Your task to perform on an android device: toggle improve location accuracy Image 0: 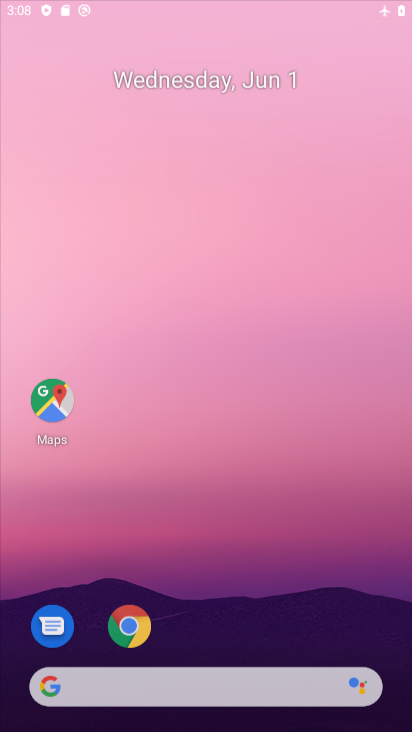
Step 0: press home button
Your task to perform on an android device: toggle improve location accuracy Image 1: 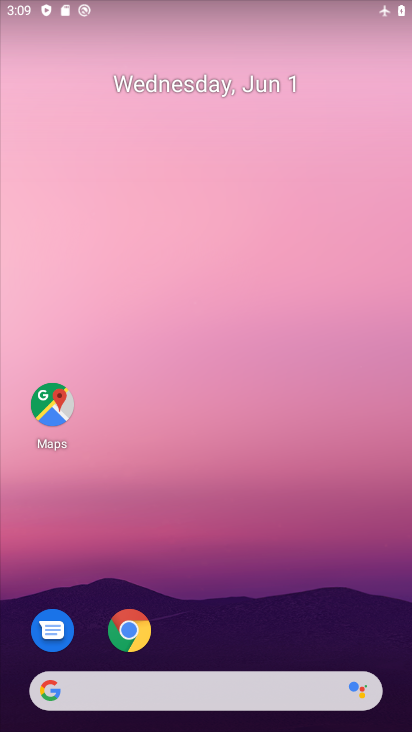
Step 1: drag from (233, 650) to (236, 228)
Your task to perform on an android device: toggle improve location accuracy Image 2: 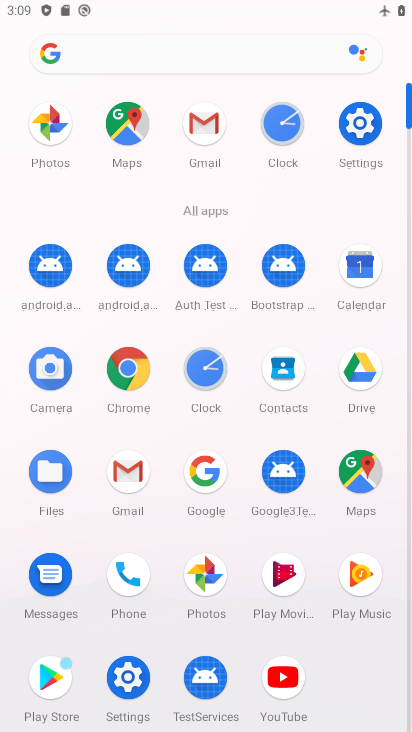
Step 2: click (363, 134)
Your task to perform on an android device: toggle improve location accuracy Image 3: 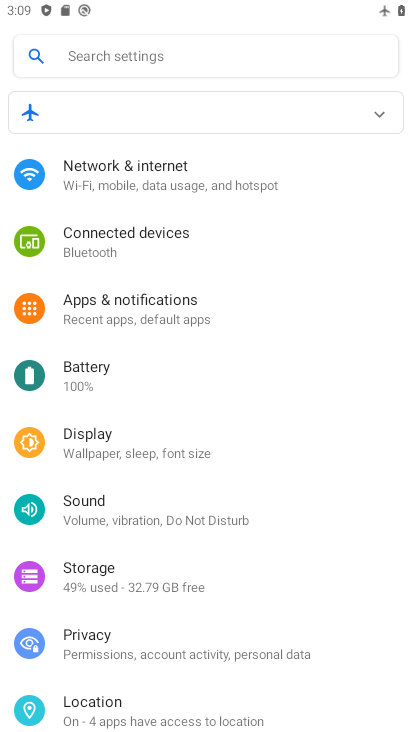
Step 3: click (106, 717)
Your task to perform on an android device: toggle improve location accuracy Image 4: 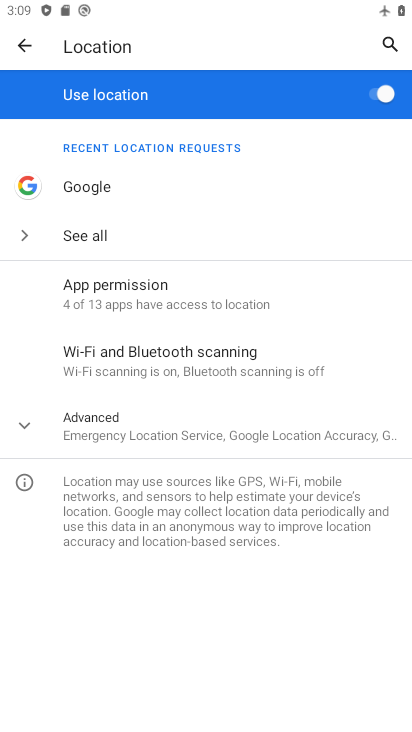
Step 4: click (100, 428)
Your task to perform on an android device: toggle improve location accuracy Image 5: 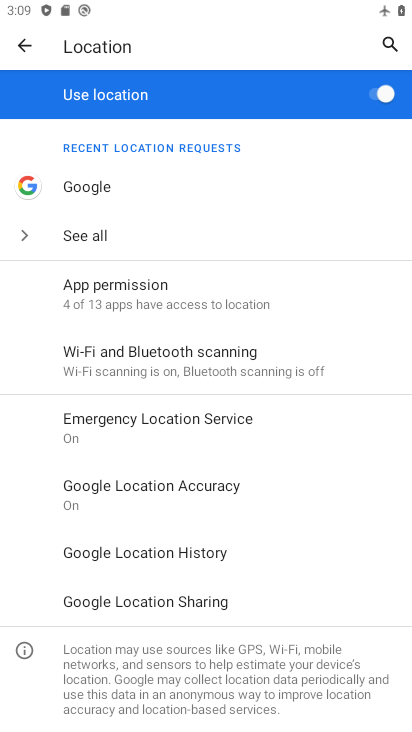
Step 5: click (201, 487)
Your task to perform on an android device: toggle improve location accuracy Image 6: 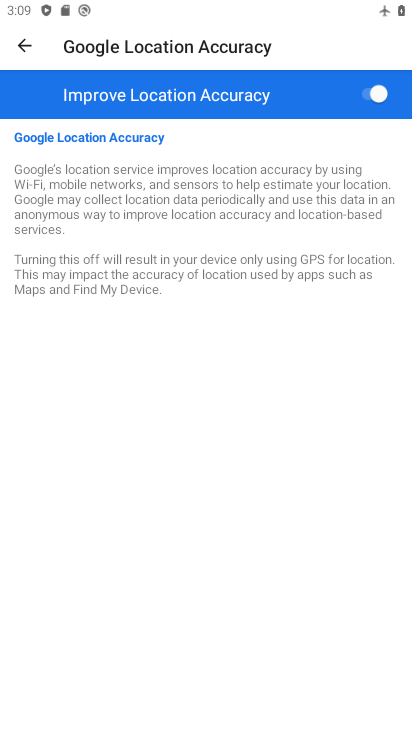
Step 6: click (385, 87)
Your task to perform on an android device: toggle improve location accuracy Image 7: 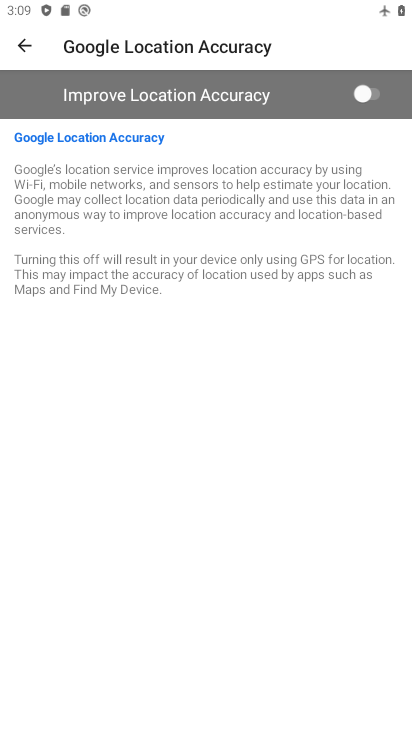
Step 7: task complete